Your task to perform on an android device: turn vacation reply on in the gmail app Image 0: 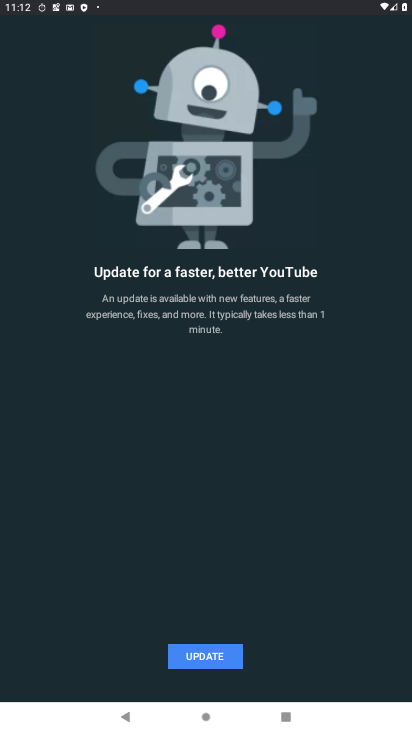
Step 0: click (69, 410)
Your task to perform on an android device: turn vacation reply on in the gmail app Image 1: 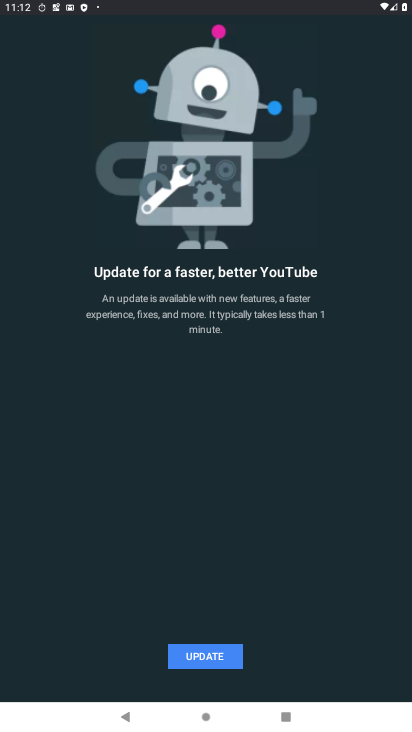
Step 1: press home button
Your task to perform on an android device: turn vacation reply on in the gmail app Image 2: 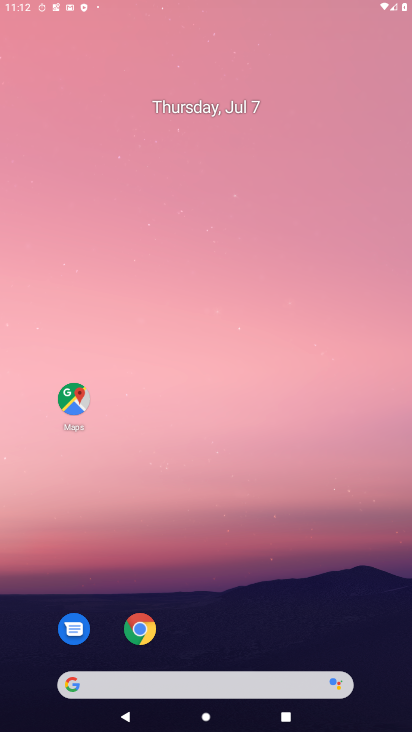
Step 2: drag from (325, 655) to (306, 267)
Your task to perform on an android device: turn vacation reply on in the gmail app Image 3: 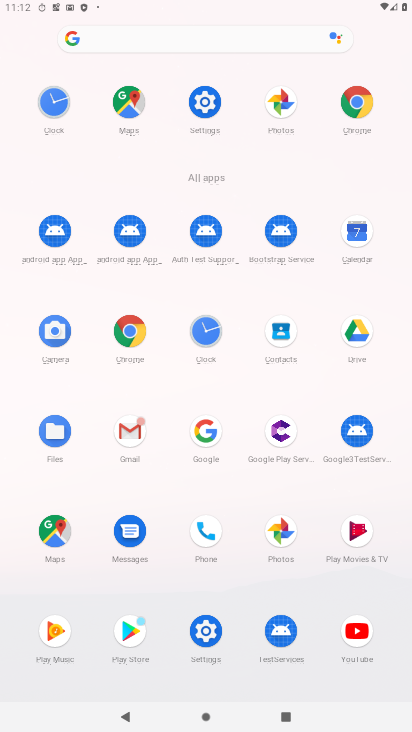
Step 3: click (123, 416)
Your task to perform on an android device: turn vacation reply on in the gmail app Image 4: 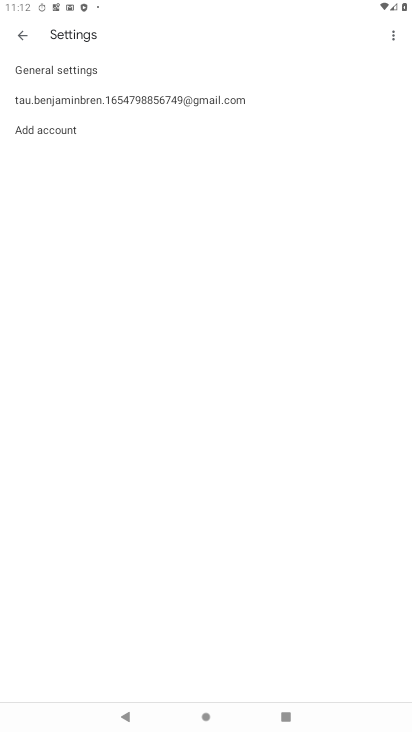
Step 4: click (13, 40)
Your task to perform on an android device: turn vacation reply on in the gmail app Image 5: 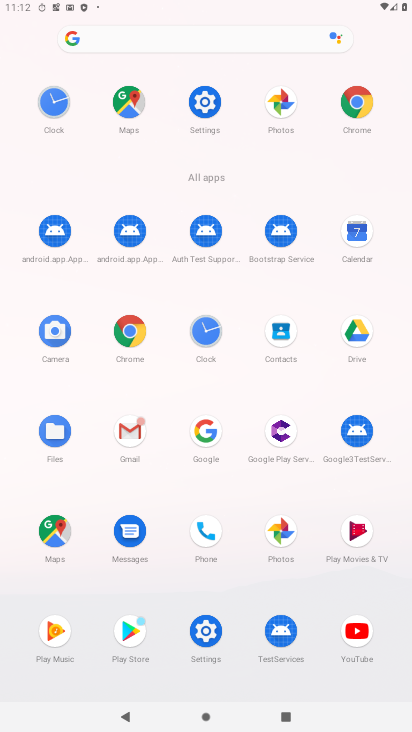
Step 5: click (136, 448)
Your task to perform on an android device: turn vacation reply on in the gmail app Image 6: 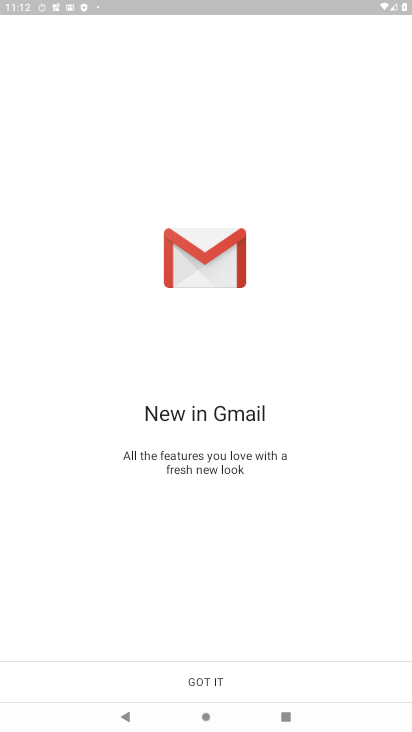
Step 6: click (228, 688)
Your task to perform on an android device: turn vacation reply on in the gmail app Image 7: 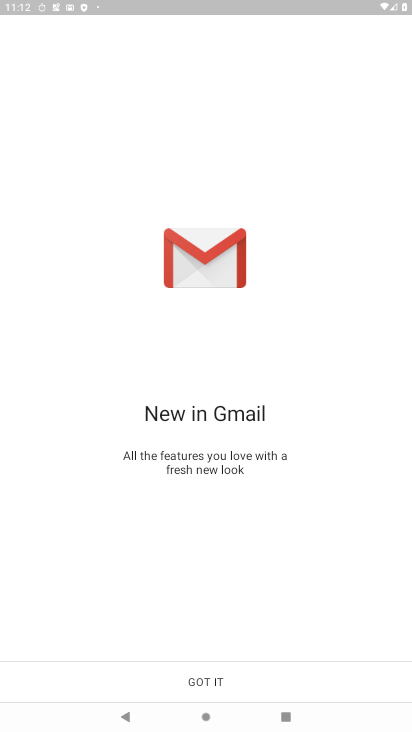
Step 7: click (228, 688)
Your task to perform on an android device: turn vacation reply on in the gmail app Image 8: 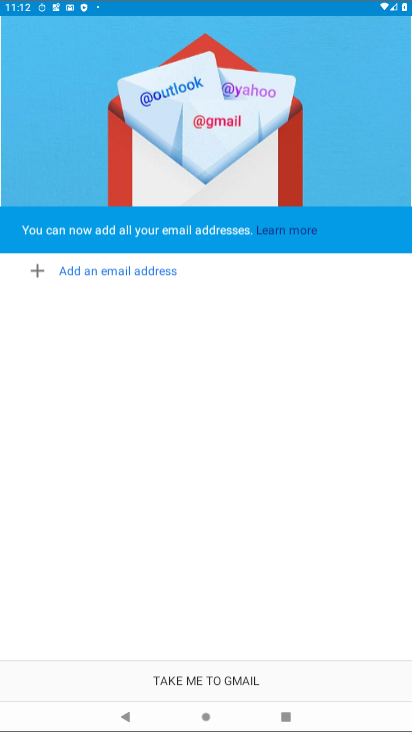
Step 8: click (228, 688)
Your task to perform on an android device: turn vacation reply on in the gmail app Image 9: 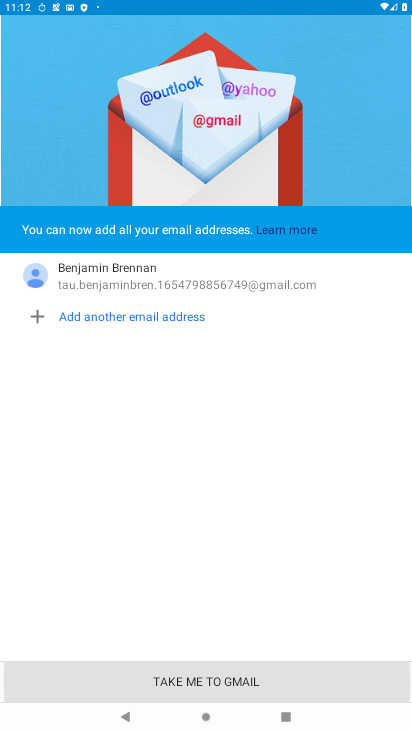
Step 9: click (228, 688)
Your task to perform on an android device: turn vacation reply on in the gmail app Image 10: 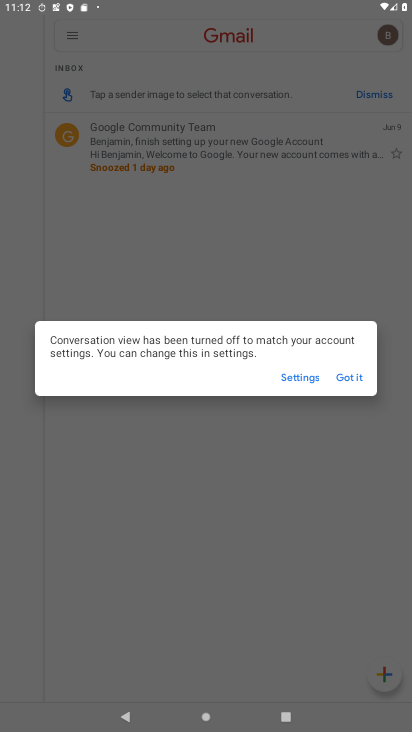
Step 10: click (358, 385)
Your task to perform on an android device: turn vacation reply on in the gmail app Image 11: 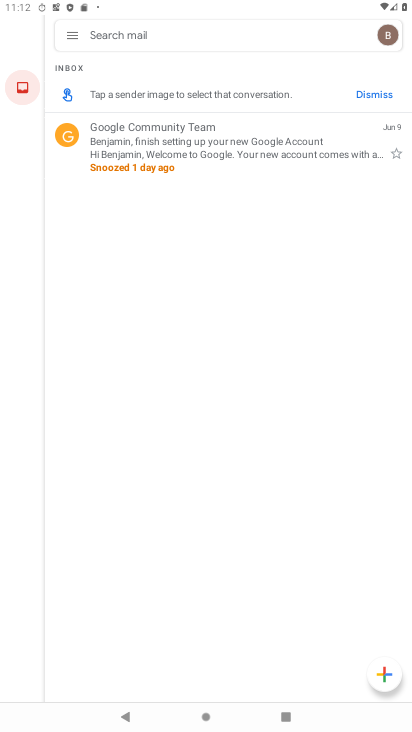
Step 11: click (66, 30)
Your task to perform on an android device: turn vacation reply on in the gmail app Image 12: 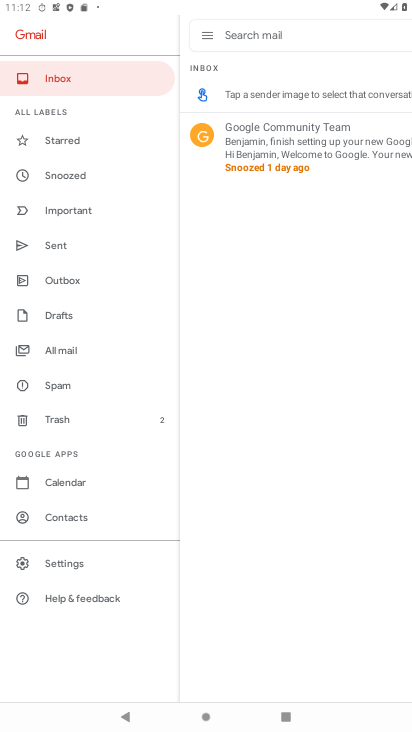
Step 12: click (53, 579)
Your task to perform on an android device: turn vacation reply on in the gmail app Image 13: 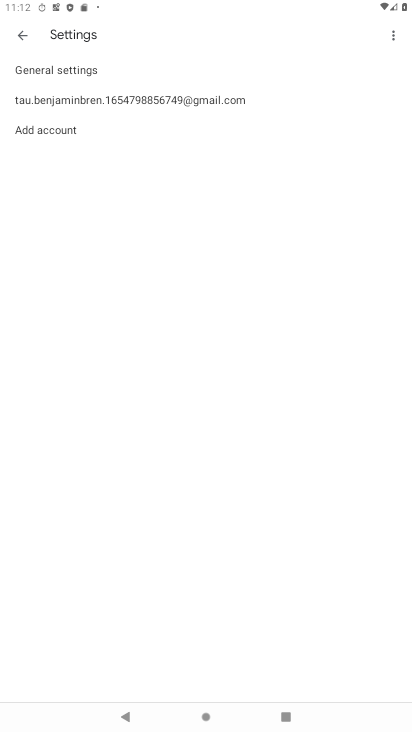
Step 13: click (140, 90)
Your task to perform on an android device: turn vacation reply on in the gmail app Image 14: 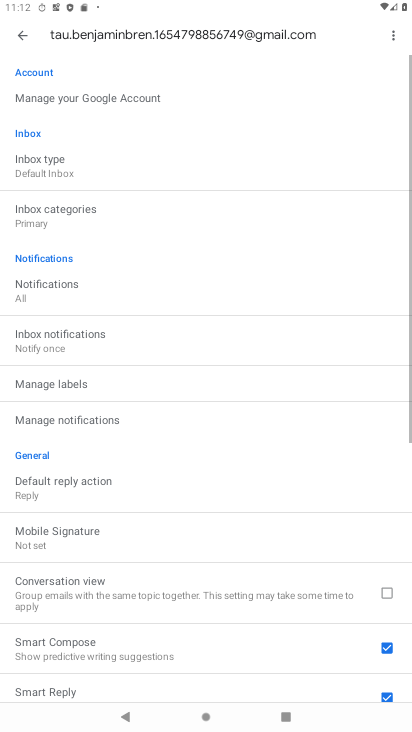
Step 14: drag from (138, 503) to (145, 137)
Your task to perform on an android device: turn vacation reply on in the gmail app Image 15: 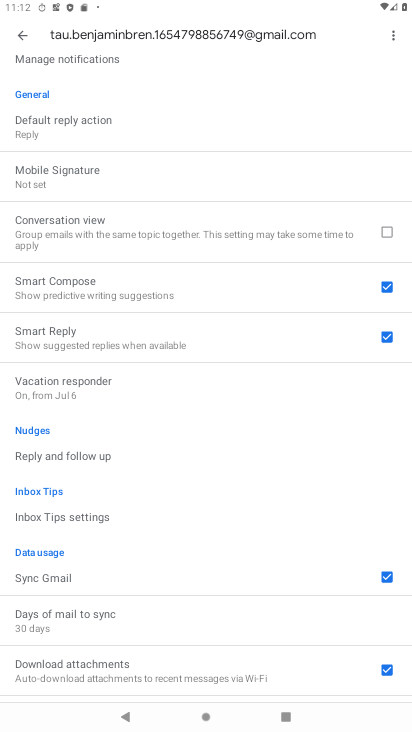
Step 15: click (53, 385)
Your task to perform on an android device: turn vacation reply on in the gmail app Image 16: 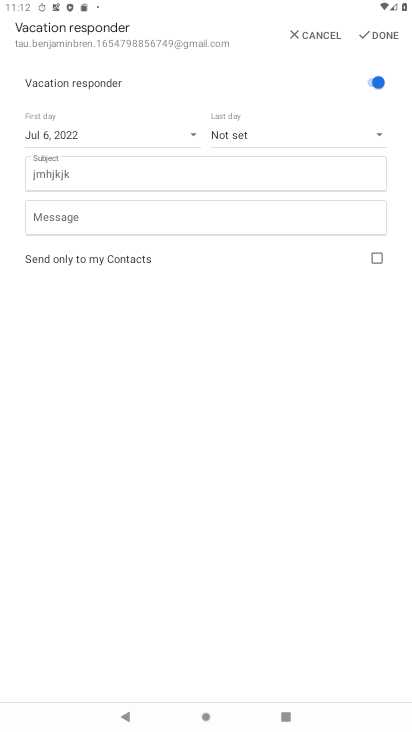
Step 16: click (43, 136)
Your task to perform on an android device: turn vacation reply on in the gmail app Image 17: 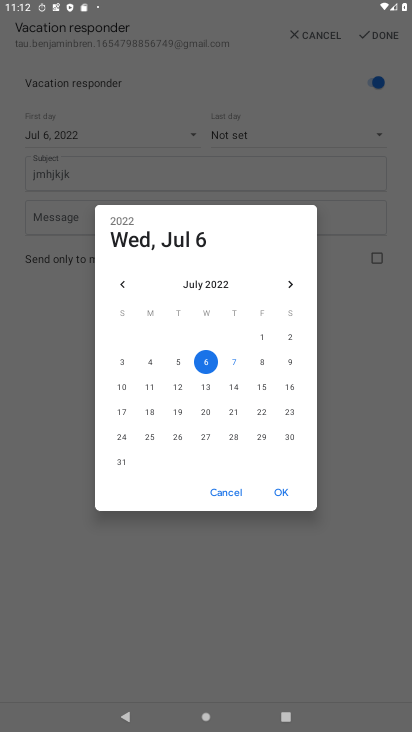
Step 17: click (264, 363)
Your task to perform on an android device: turn vacation reply on in the gmail app Image 18: 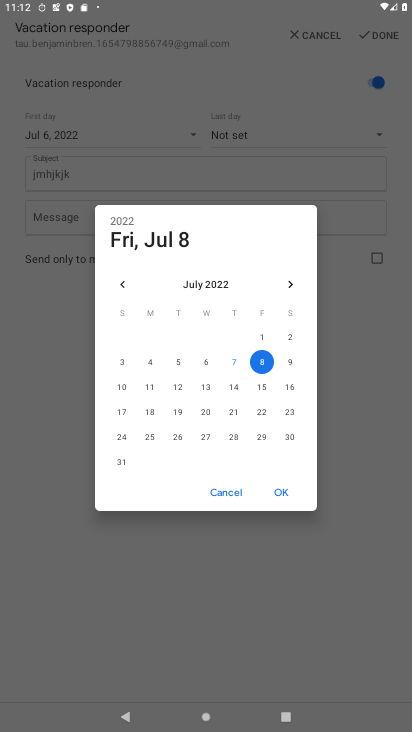
Step 18: click (278, 482)
Your task to perform on an android device: turn vacation reply on in the gmail app Image 19: 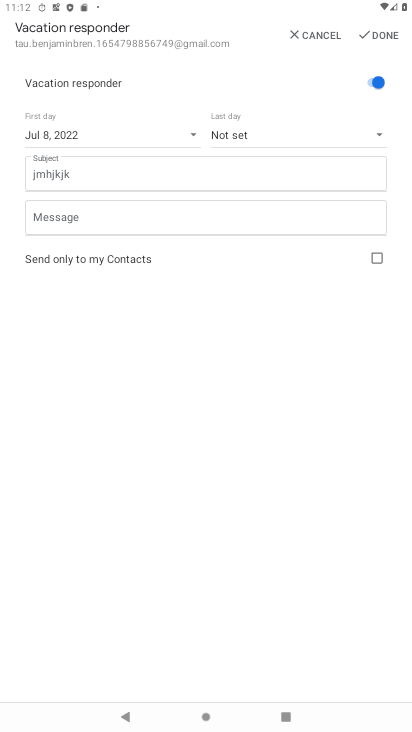
Step 19: click (247, 138)
Your task to perform on an android device: turn vacation reply on in the gmail app Image 20: 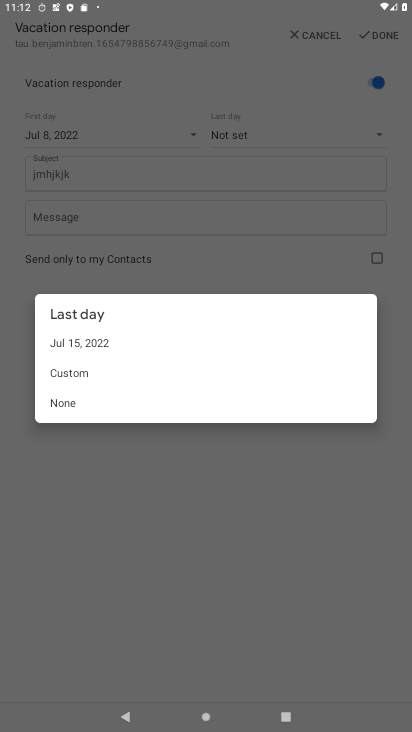
Step 20: click (122, 346)
Your task to perform on an android device: turn vacation reply on in the gmail app Image 21: 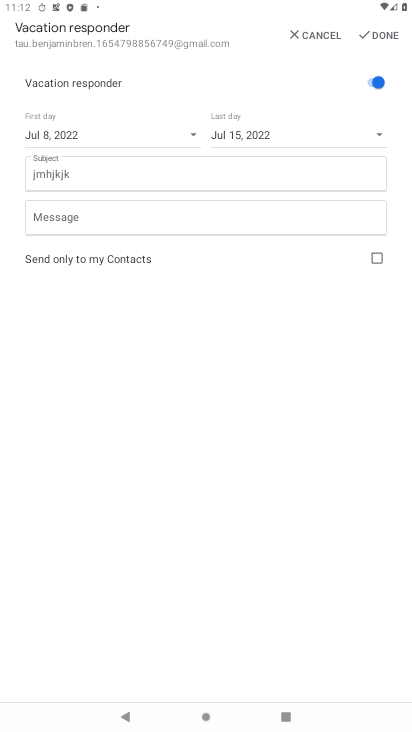
Step 21: click (394, 36)
Your task to perform on an android device: turn vacation reply on in the gmail app Image 22: 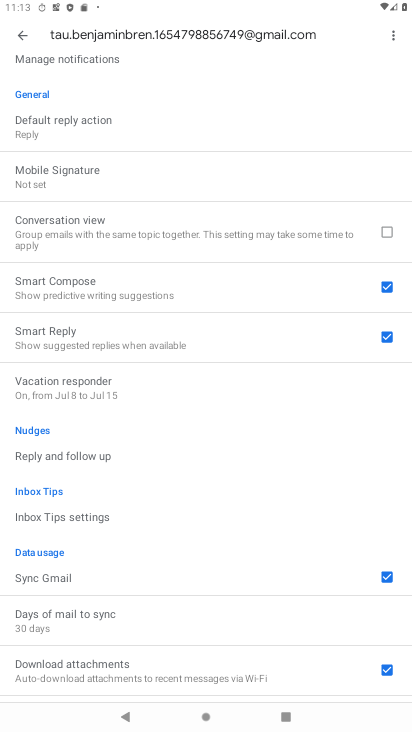
Step 22: task complete